Your task to perform on an android device: turn on sleep mode Image 0: 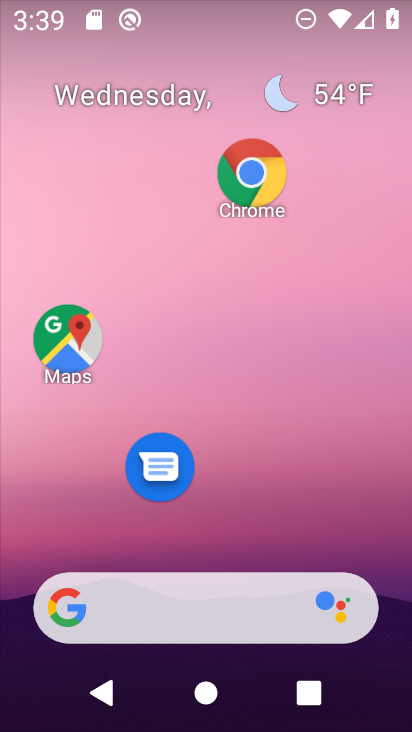
Step 0: drag from (238, 510) to (258, 46)
Your task to perform on an android device: turn on sleep mode Image 1: 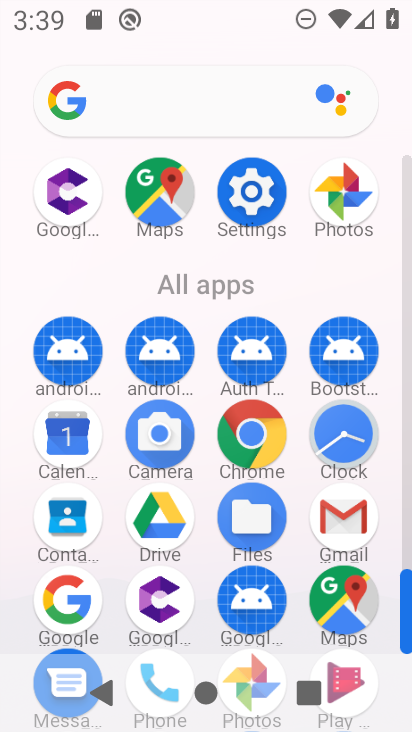
Step 1: click (257, 184)
Your task to perform on an android device: turn on sleep mode Image 2: 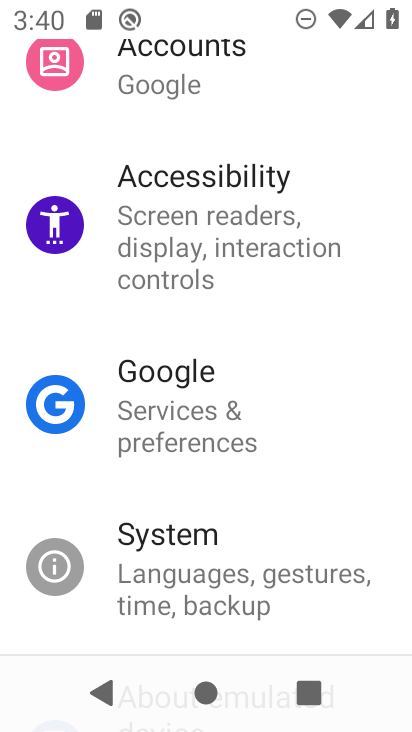
Step 2: drag from (216, 95) to (200, 652)
Your task to perform on an android device: turn on sleep mode Image 3: 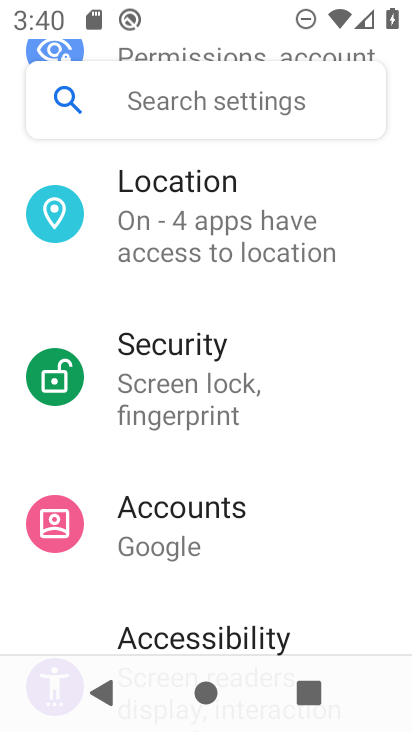
Step 3: drag from (211, 264) to (184, 708)
Your task to perform on an android device: turn on sleep mode Image 4: 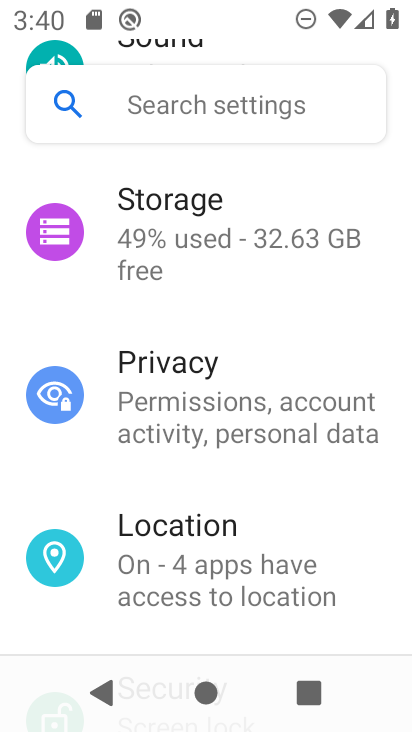
Step 4: drag from (221, 376) to (231, 718)
Your task to perform on an android device: turn on sleep mode Image 5: 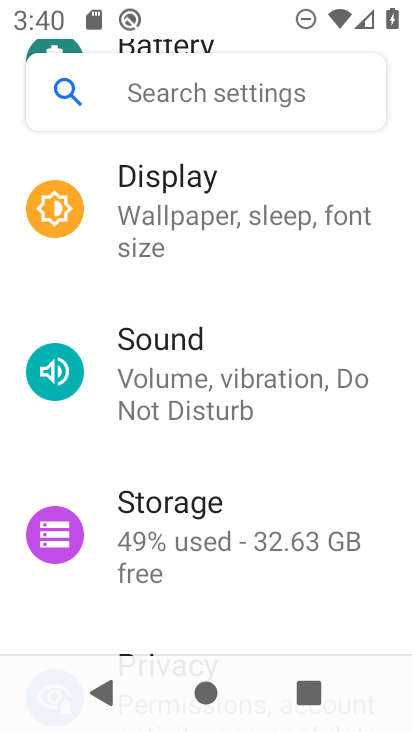
Step 5: drag from (221, 236) to (227, 695)
Your task to perform on an android device: turn on sleep mode Image 6: 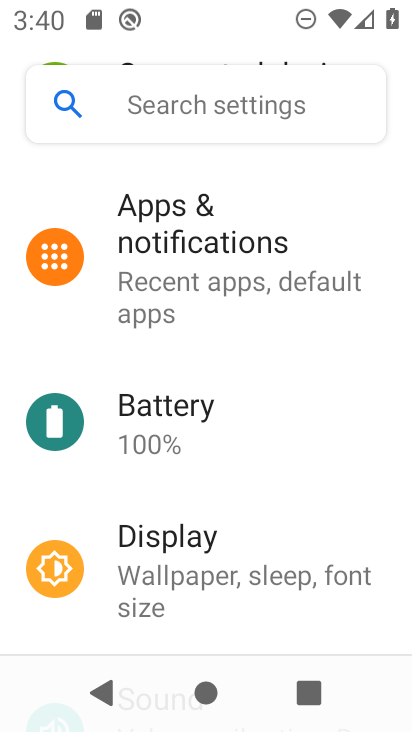
Step 6: drag from (262, 223) to (211, 724)
Your task to perform on an android device: turn on sleep mode Image 7: 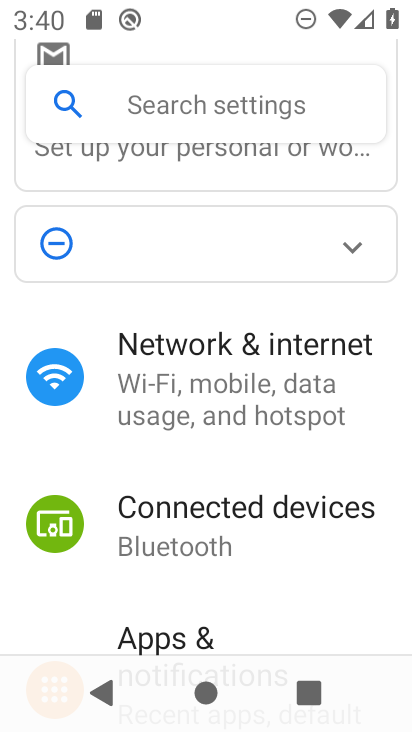
Step 7: click (165, 108)
Your task to perform on an android device: turn on sleep mode Image 8: 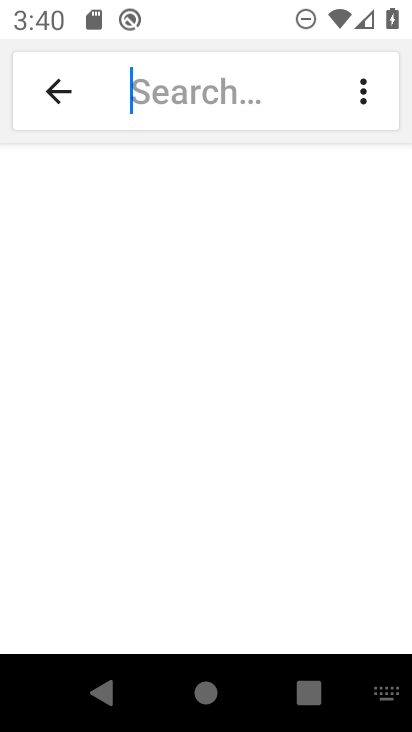
Step 8: type "sleep mode"
Your task to perform on an android device: turn on sleep mode Image 9: 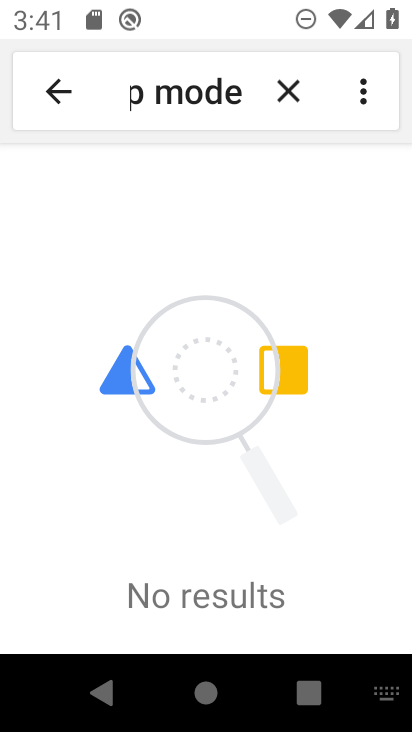
Step 9: task complete